Your task to perform on an android device: turn on improve location accuracy Image 0: 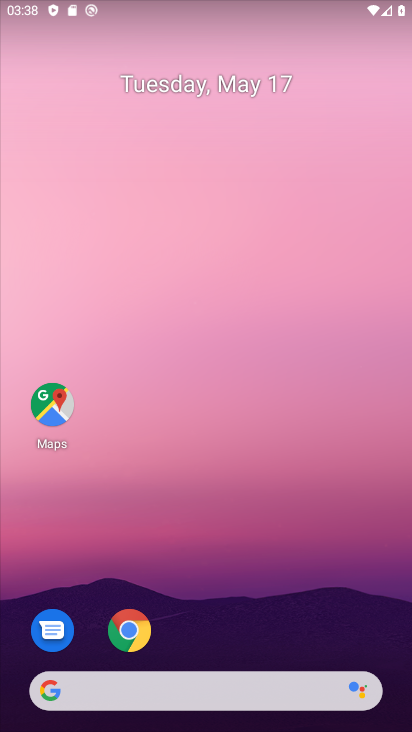
Step 0: drag from (204, 663) to (285, 153)
Your task to perform on an android device: turn on improve location accuracy Image 1: 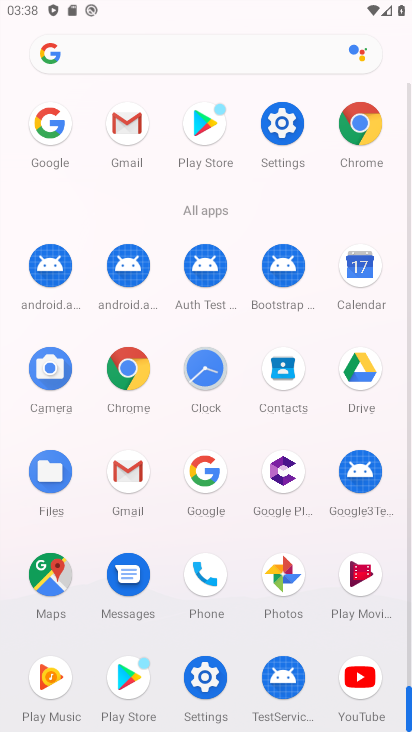
Step 1: drag from (145, 632) to (214, 373)
Your task to perform on an android device: turn on improve location accuracy Image 2: 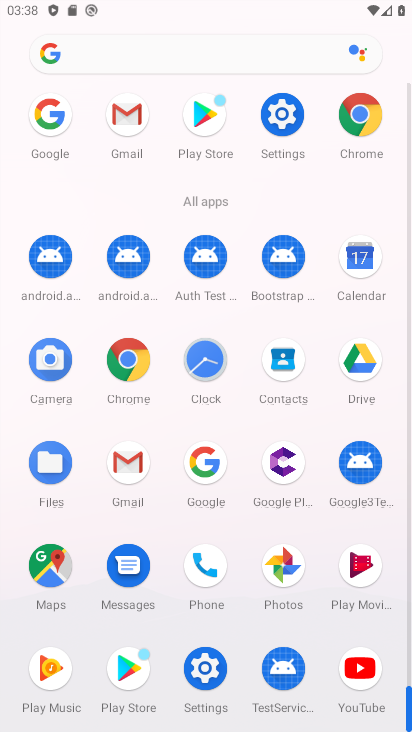
Step 2: click (207, 679)
Your task to perform on an android device: turn on improve location accuracy Image 3: 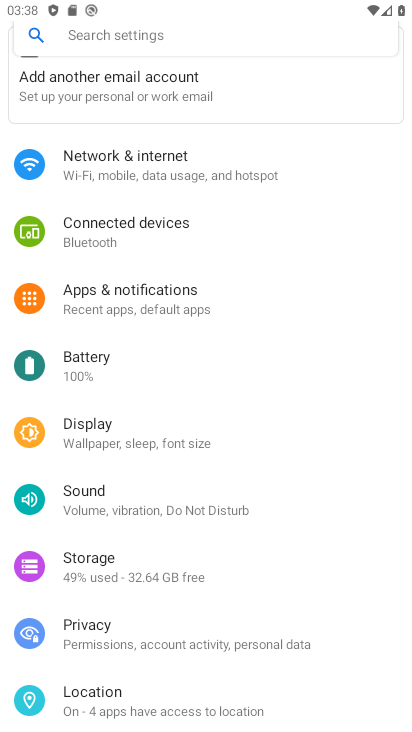
Step 3: drag from (160, 615) to (220, 311)
Your task to perform on an android device: turn on improve location accuracy Image 4: 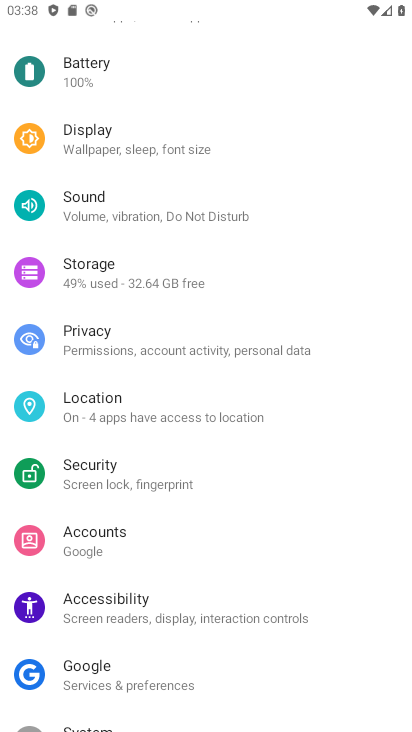
Step 4: click (159, 412)
Your task to perform on an android device: turn on improve location accuracy Image 5: 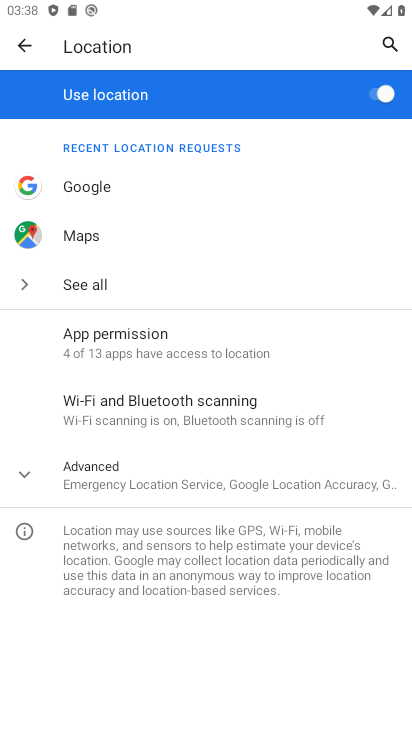
Step 5: click (261, 476)
Your task to perform on an android device: turn on improve location accuracy Image 6: 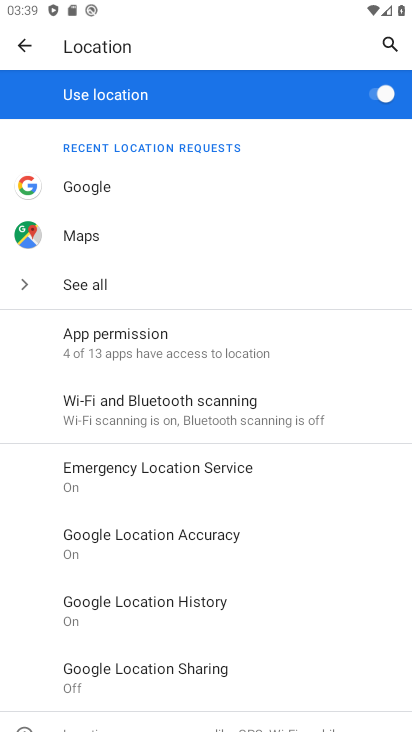
Step 6: click (243, 538)
Your task to perform on an android device: turn on improve location accuracy Image 7: 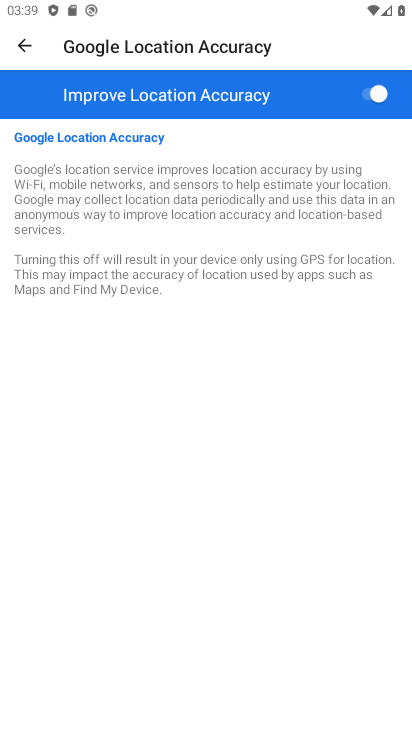
Step 7: task complete